Your task to perform on an android device: Open notification settings Image 0: 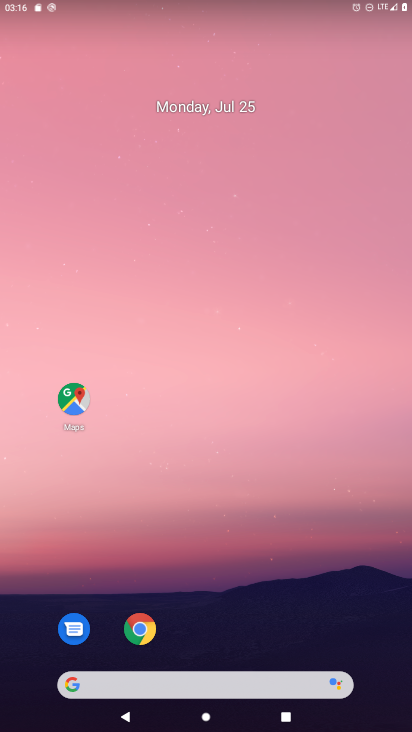
Step 0: drag from (285, 554) to (365, 176)
Your task to perform on an android device: Open notification settings Image 1: 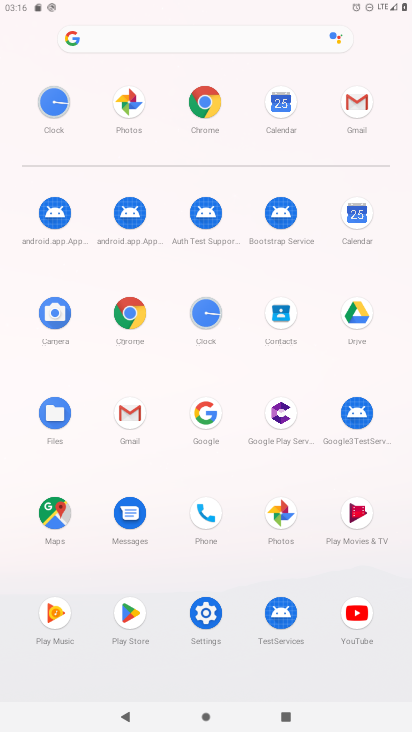
Step 1: click (212, 610)
Your task to perform on an android device: Open notification settings Image 2: 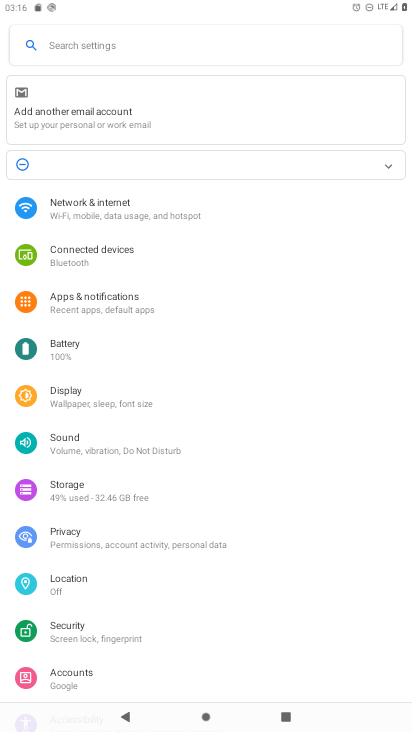
Step 2: click (97, 299)
Your task to perform on an android device: Open notification settings Image 3: 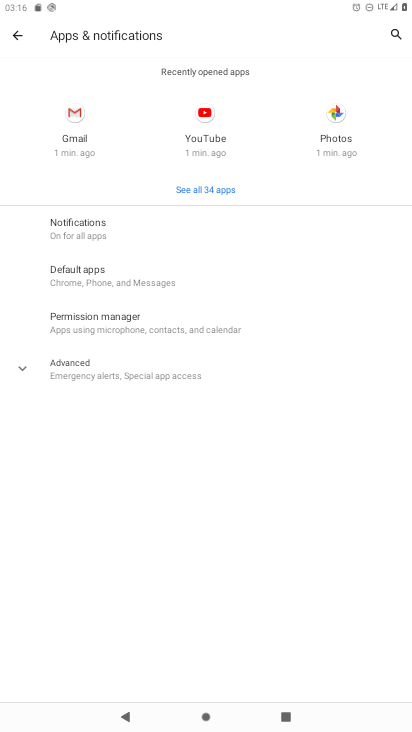
Step 3: click (84, 230)
Your task to perform on an android device: Open notification settings Image 4: 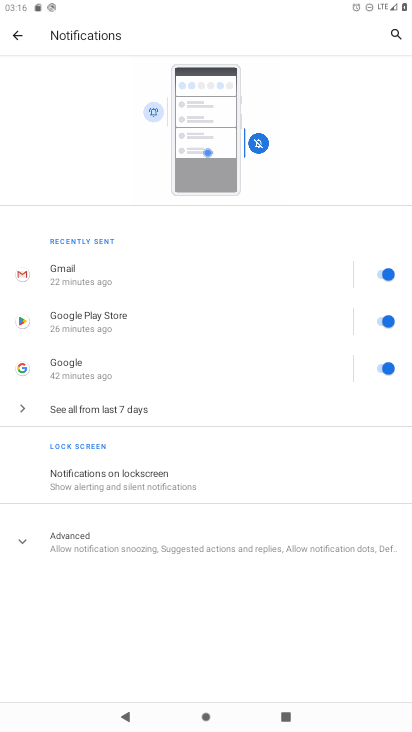
Step 4: task complete